Your task to perform on an android device: find which apps use the phone's location Image 0: 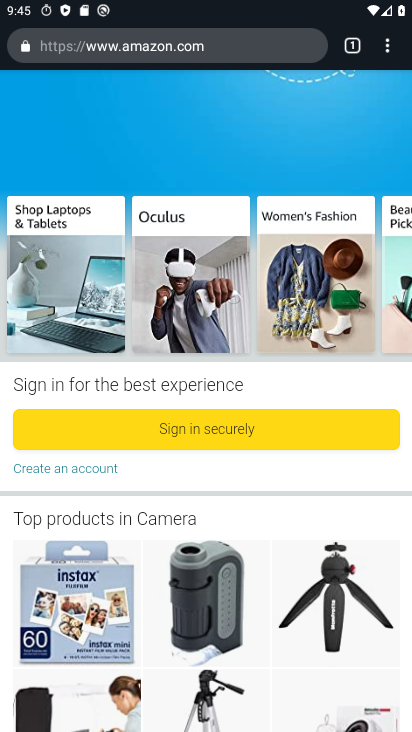
Step 0: press home button
Your task to perform on an android device: find which apps use the phone's location Image 1: 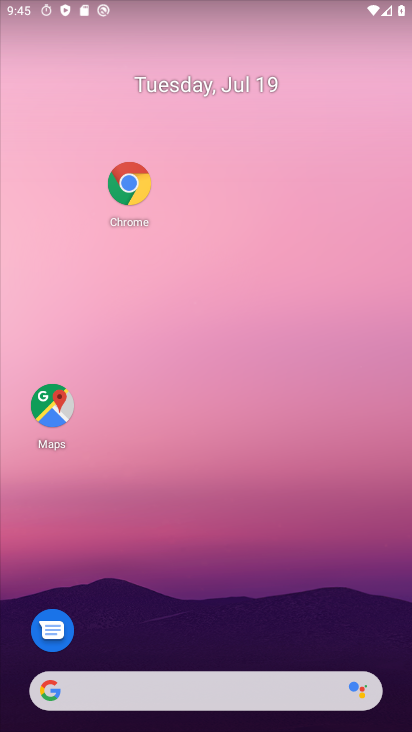
Step 1: drag from (232, 635) to (94, 145)
Your task to perform on an android device: find which apps use the phone's location Image 2: 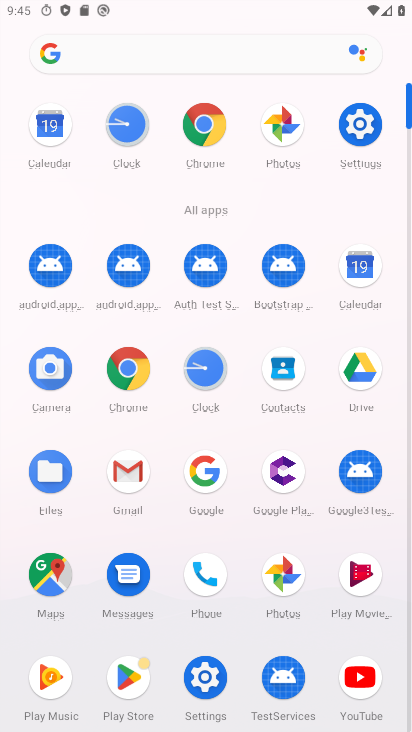
Step 2: click (357, 135)
Your task to perform on an android device: find which apps use the phone's location Image 3: 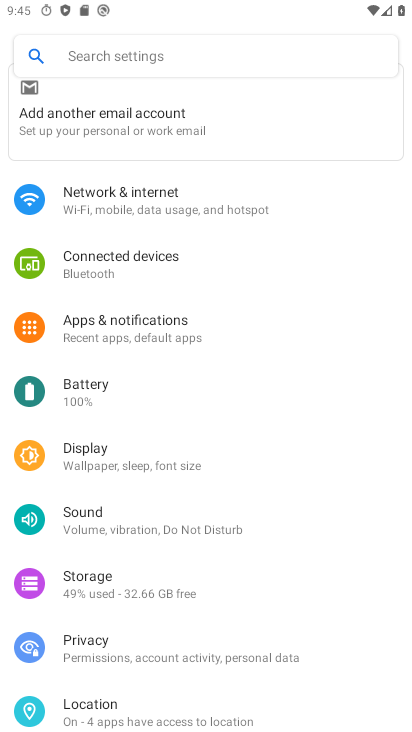
Step 3: drag from (140, 650) to (89, 129)
Your task to perform on an android device: find which apps use the phone's location Image 4: 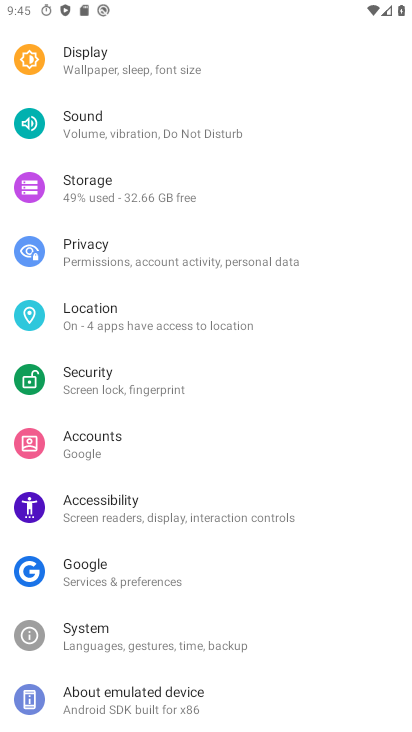
Step 4: click (77, 304)
Your task to perform on an android device: find which apps use the phone's location Image 5: 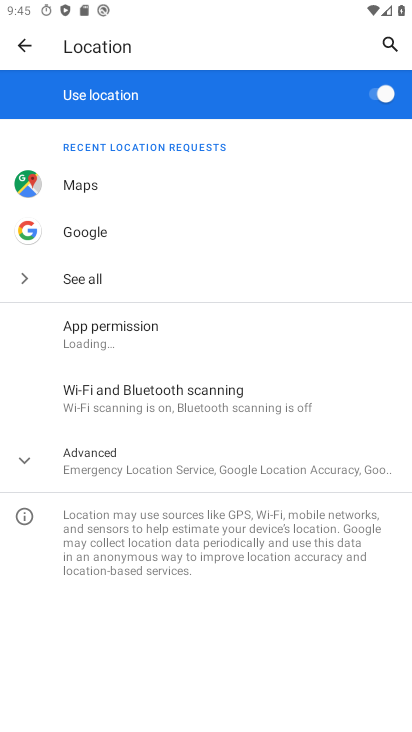
Step 5: click (103, 349)
Your task to perform on an android device: find which apps use the phone's location Image 6: 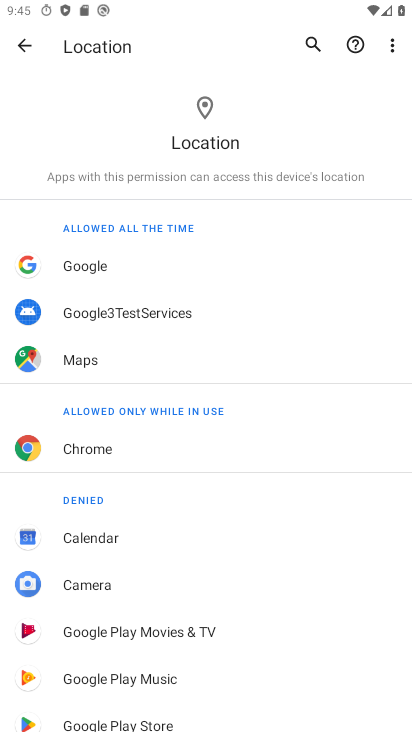
Step 6: task complete